Your task to perform on an android device: Empty the shopping cart on amazon. Image 0: 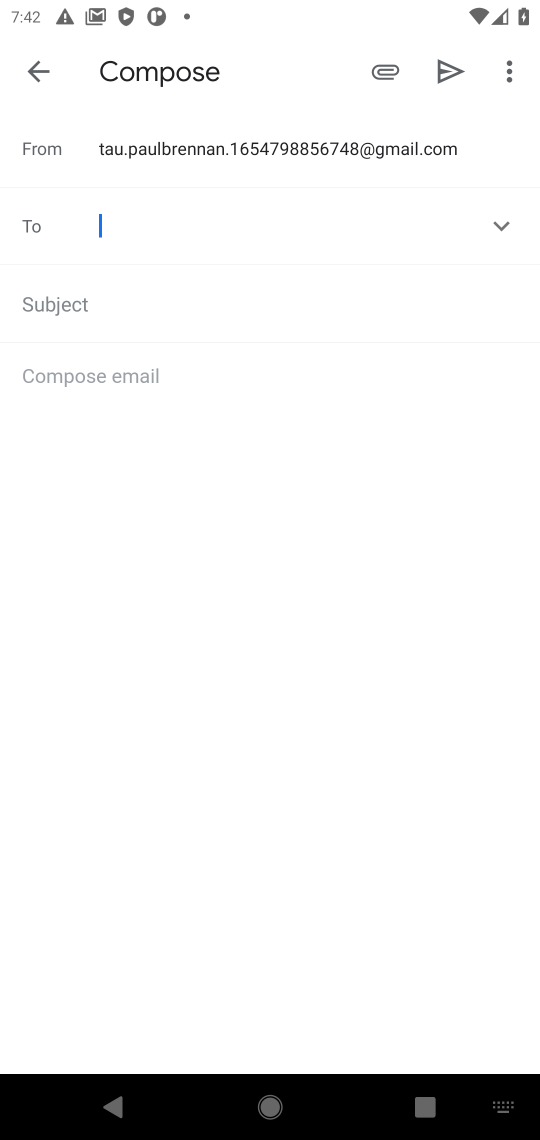
Step 0: press home button
Your task to perform on an android device: Empty the shopping cart on amazon. Image 1: 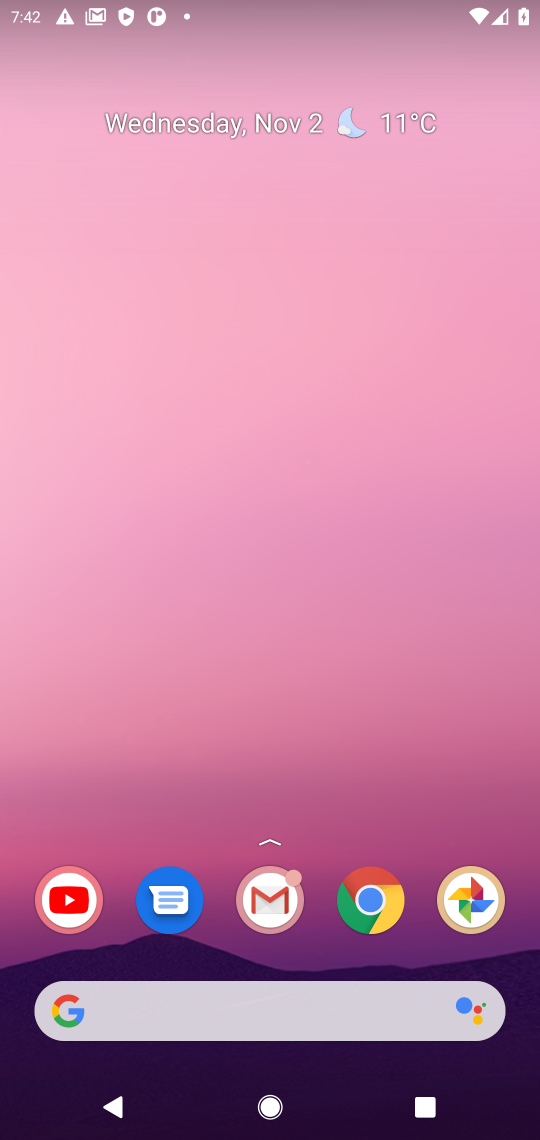
Step 1: click (262, 1017)
Your task to perform on an android device: Empty the shopping cart on amazon. Image 2: 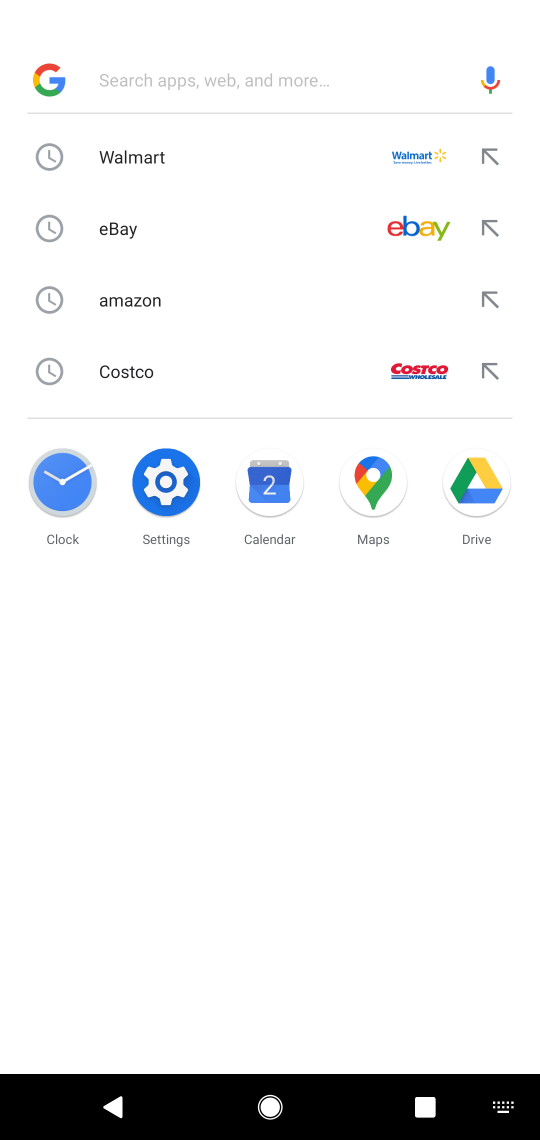
Step 2: click (142, 292)
Your task to perform on an android device: Empty the shopping cart on amazon. Image 3: 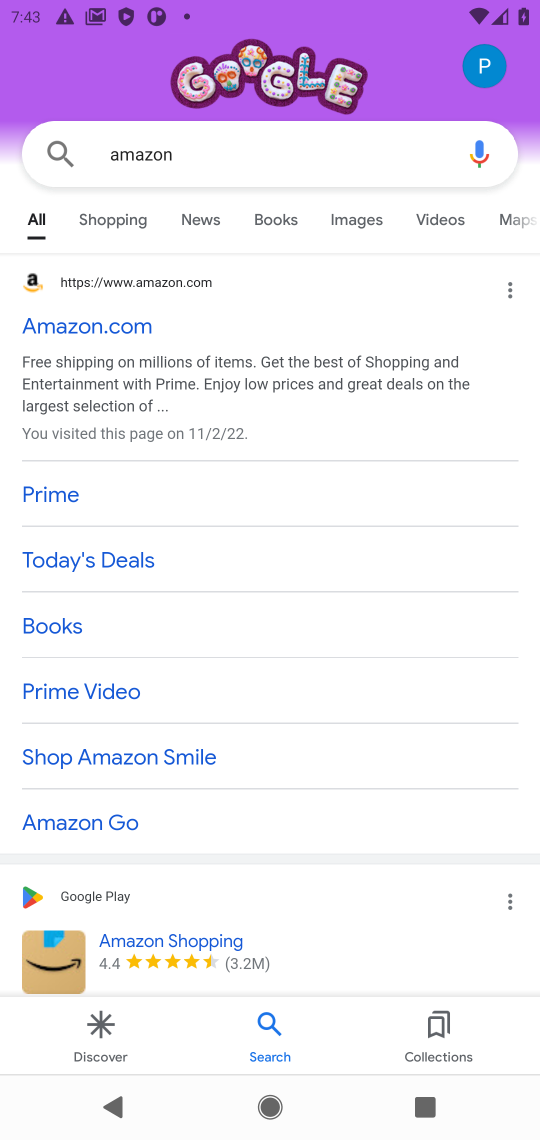
Step 3: click (100, 321)
Your task to perform on an android device: Empty the shopping cart on amazon. Image 4: 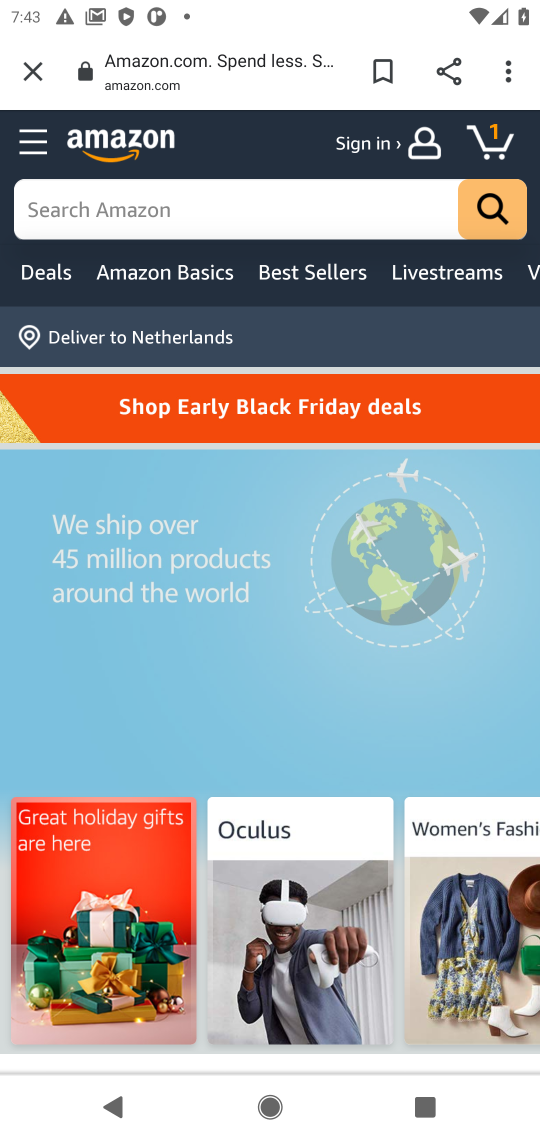
Step 4: click (226, 201)
Your task to perform on an android device: Empty the shopping cart on amazon. Image 5: 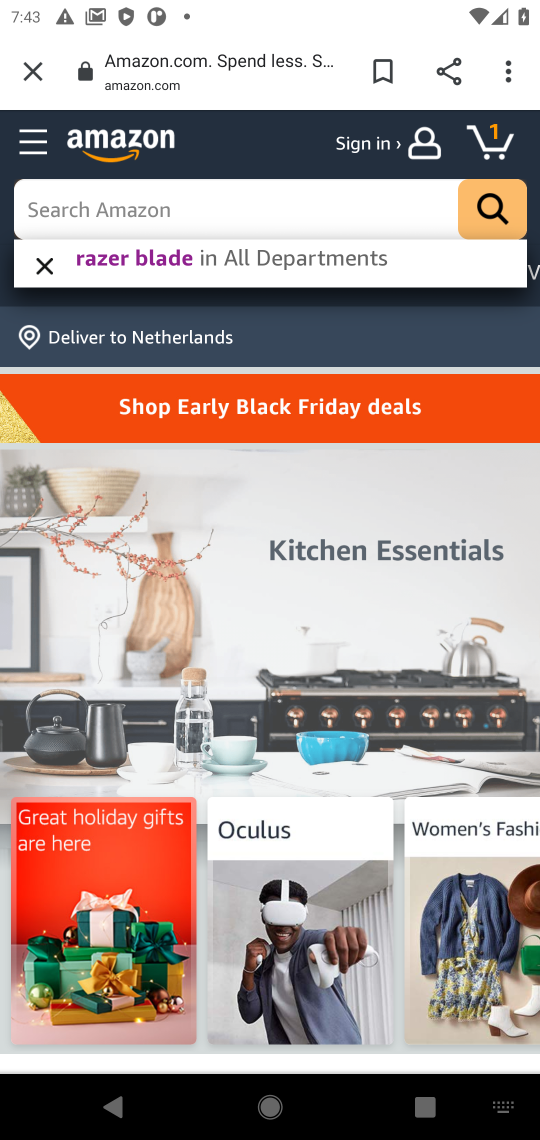
Step 5: click (500, 137)
Your task to perform on an android device: Empty the shopping cart on amazon. Image 6: 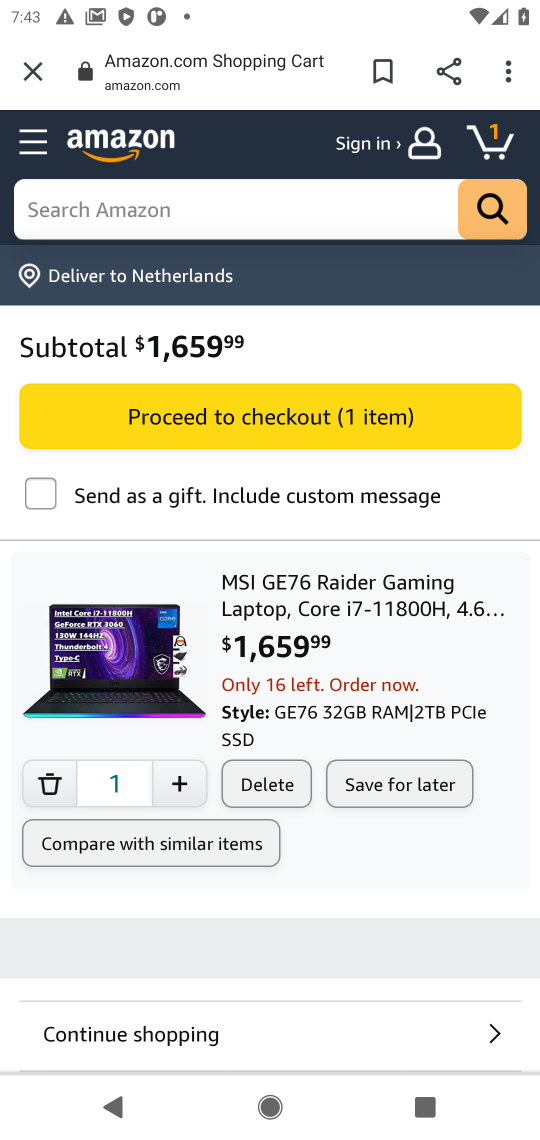
Step 6: click (48, 783)
Your task to perform on an android device: Empty the shopping cart on amazon. Image 7: 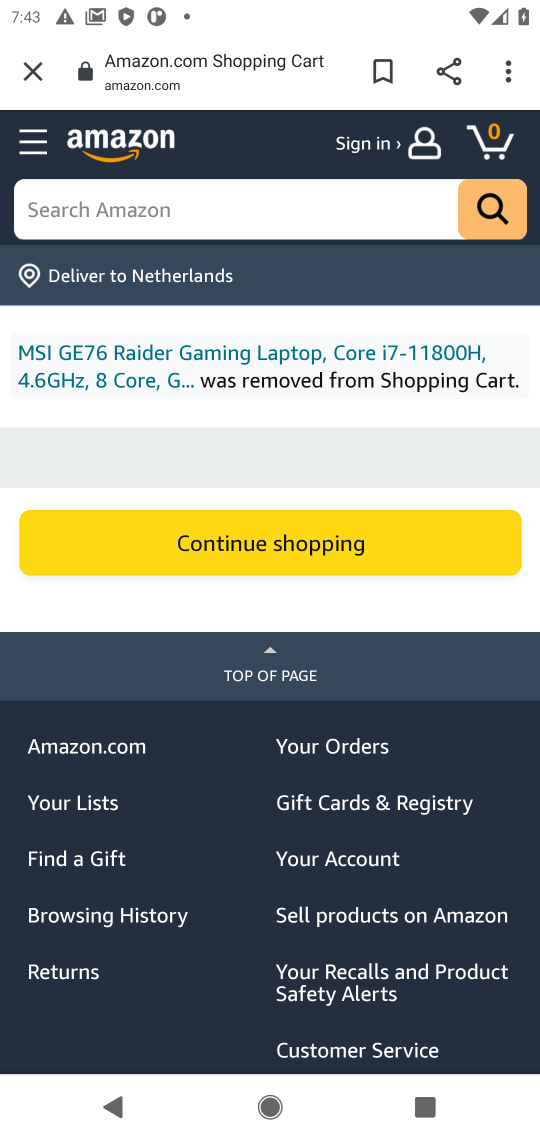
Step 7: task complete